Your task to perform on an android device: Open internet settings Image 0: 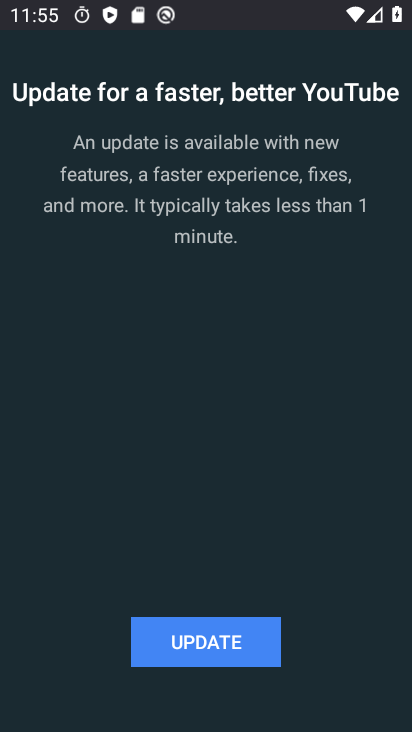
Step 0: press home button
Your task to perform on an android device: Open internet settings Image 1: 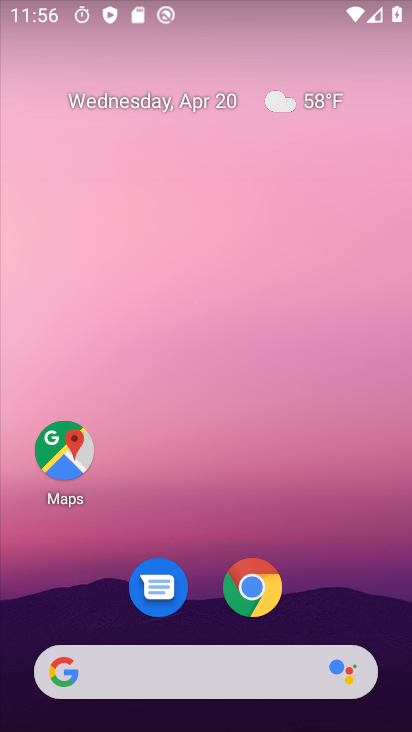
Step 1: drag from (190, 532) to (388, 6)
Your task to perform on an android device: Open internet settings Image 2: 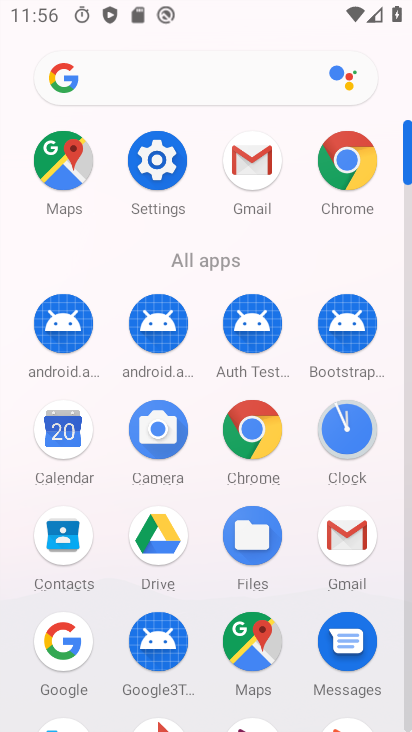
Step 2: click (149, 153)
Your task to perform on an android device: Open internet settings Image 3: 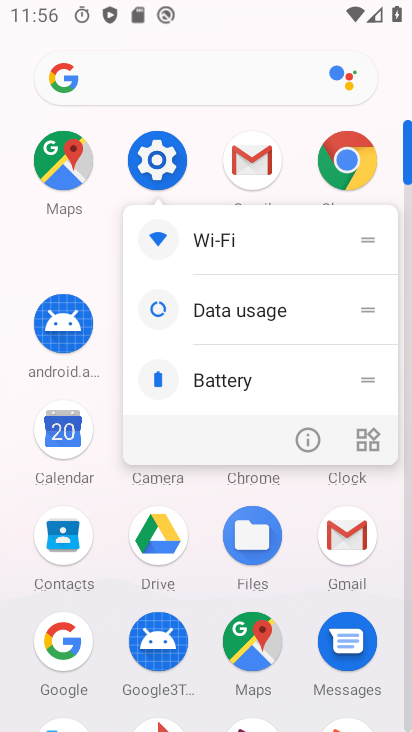
Step 3: click (173, 160)
Your task to perform on an android device: Open internet settings Image 4: 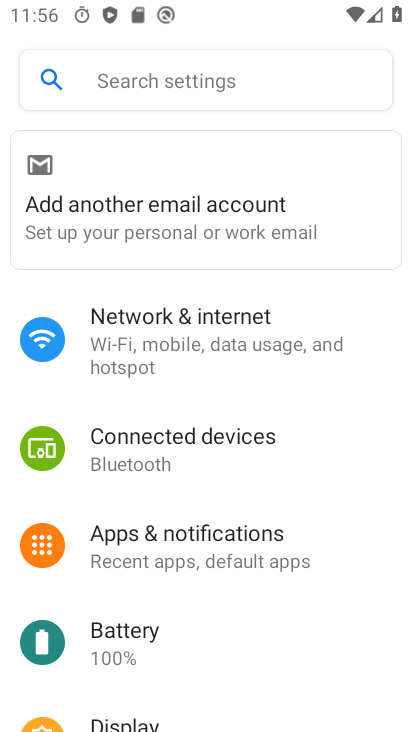
Step 4: click (177, 323)
Your task to perform on an android device: Open internet settings Image 5: 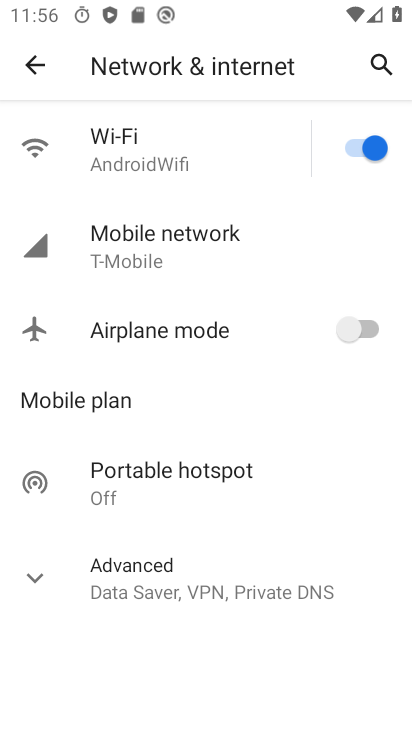
Step 5: task complete